Your task to perform on an android device: toggle improve location accuracy Image 0: 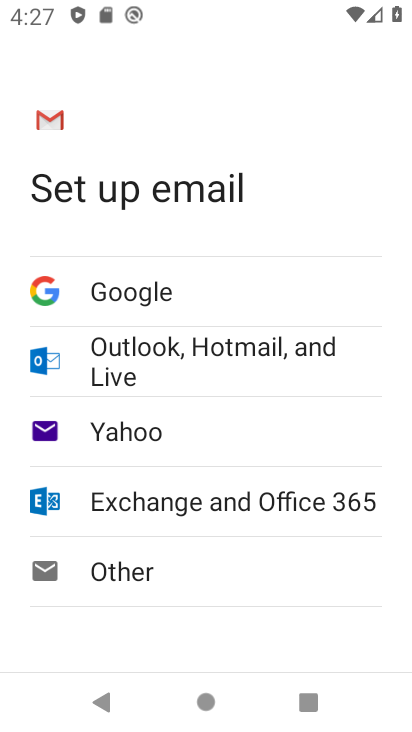
Step 0: press home button
Your task to perform on an android device: toggle improve location accuracy Image 1: 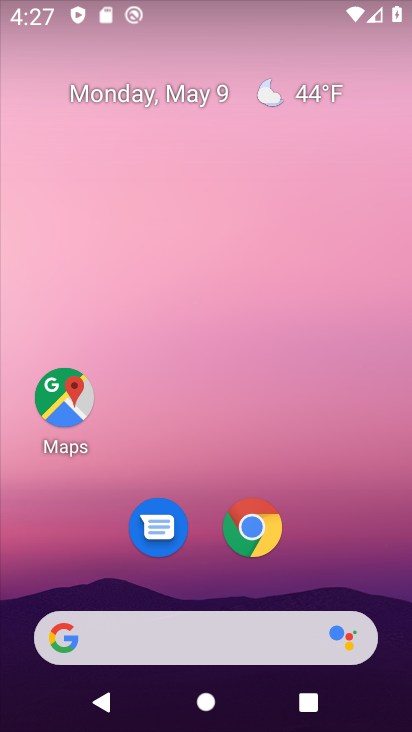
Step 1: drag from (217, 554) to (238, 96)
Your task to perform on an android device: toggle improve location accuracy Image 2: 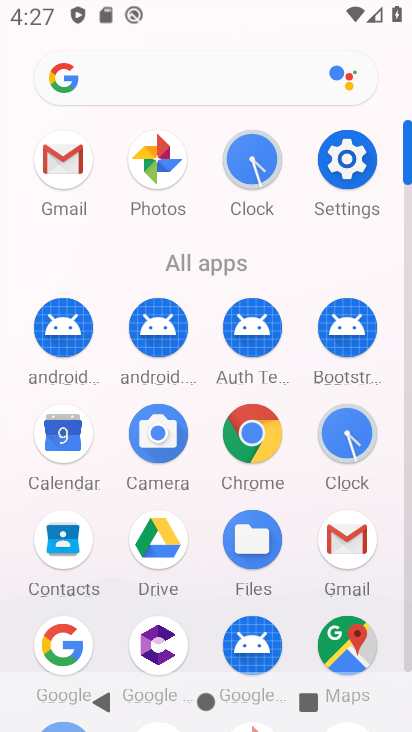
Step 2: click (332, 165)
Your task to perform on an android device: toggle improve location accuracy Image 3: 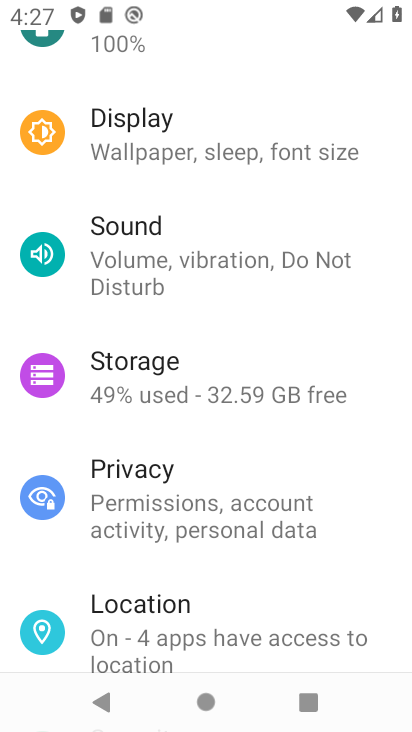
Step 3: click (128, 589)
Your task to perform on an android device: toggle improve location accuracy Image 4: 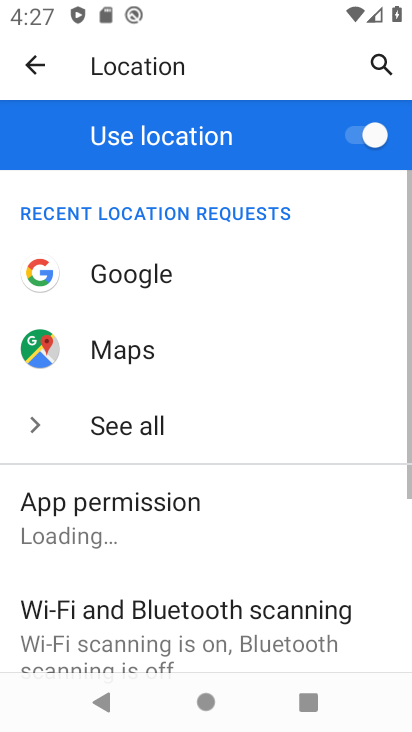
Step 4: drag from (151, 622) to (235, 109)
Your task to perform on an android device: toggle improve location accuracy Image 5: 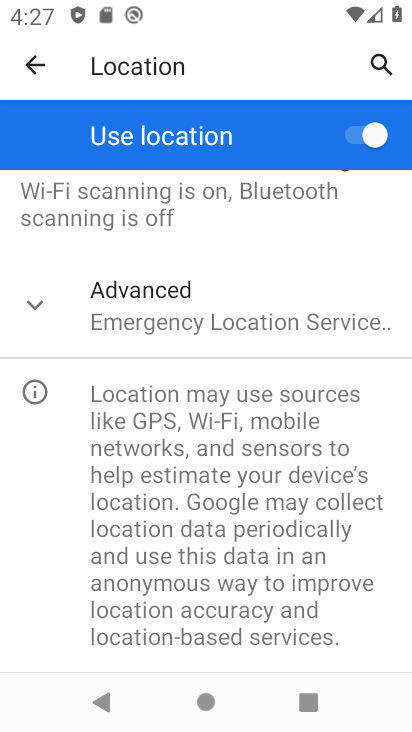
Step 5: click (226, 321)
Your task to perform on an android device: toggle improve location accuracy Image 6: 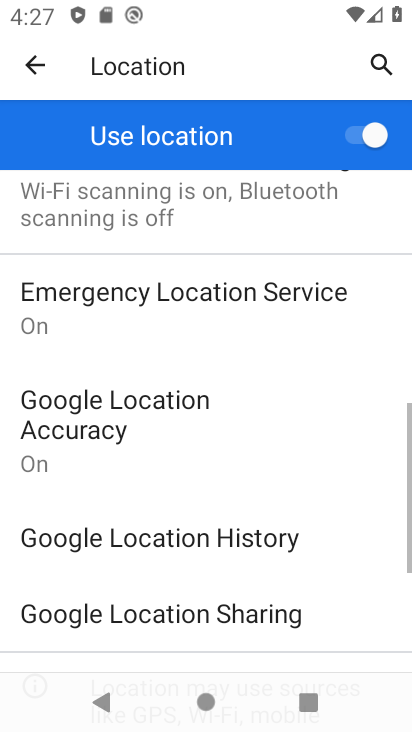
Step 6: drag from (168, 580) to (230, 329)
Your task to perform on an android device: toggle improve location accuracy Image 7: 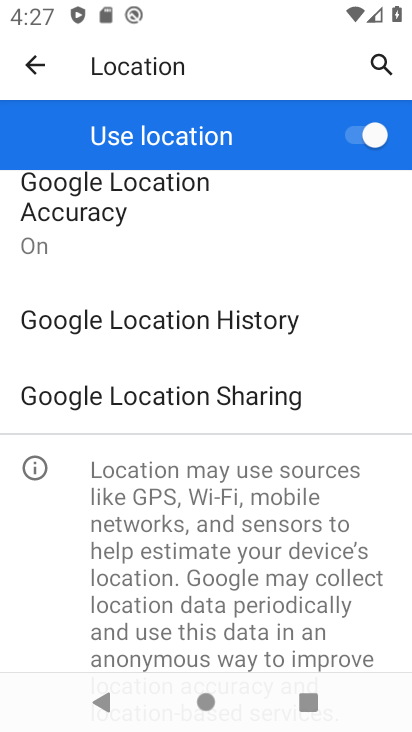
Step 7: click (149, 237)
Your task to perform on an android device: toggle improve location accuracy Image 8: 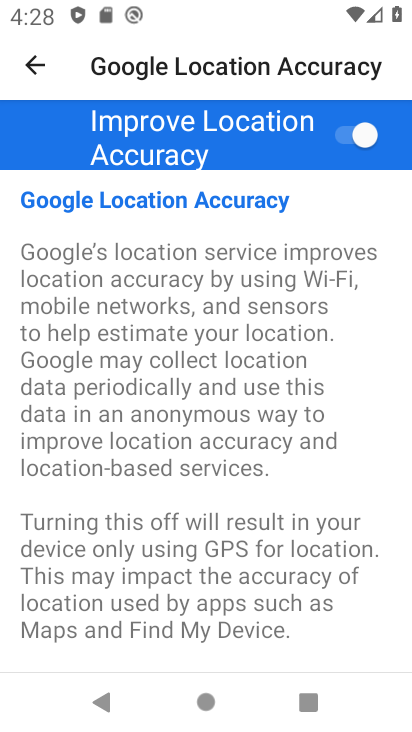
Step 8: click (342, 132)
Your task to perform on an android device: toggle improve location accuracy Image 9: 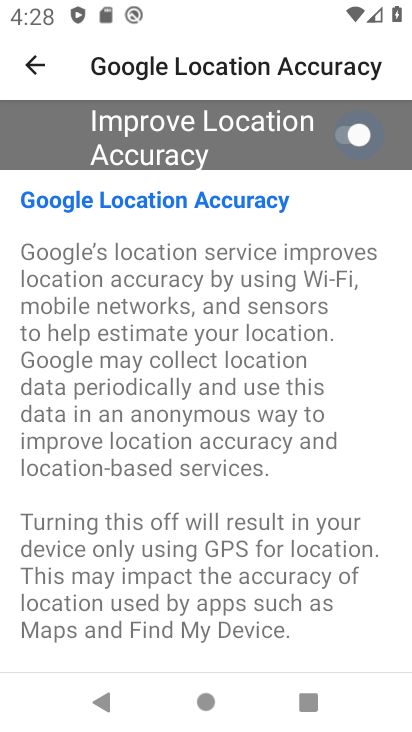
Step 9: click (342, 132)
Your task to perform on an android device: toggle improve location accuracy Image 10: 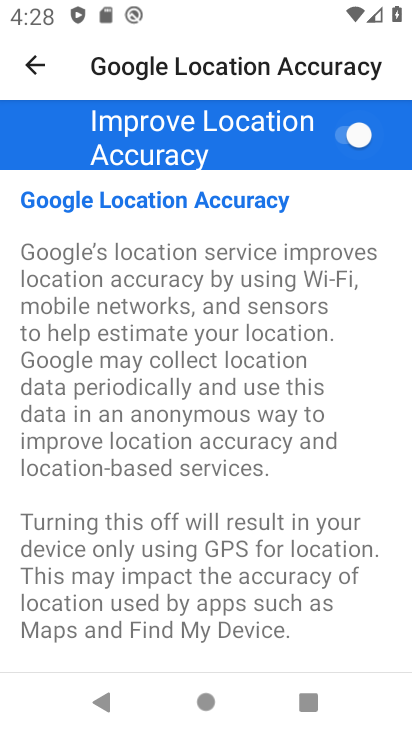
Step 10: click (342, 132)
Your task to perform on an android device: toggle improve location accuracy Image 11: 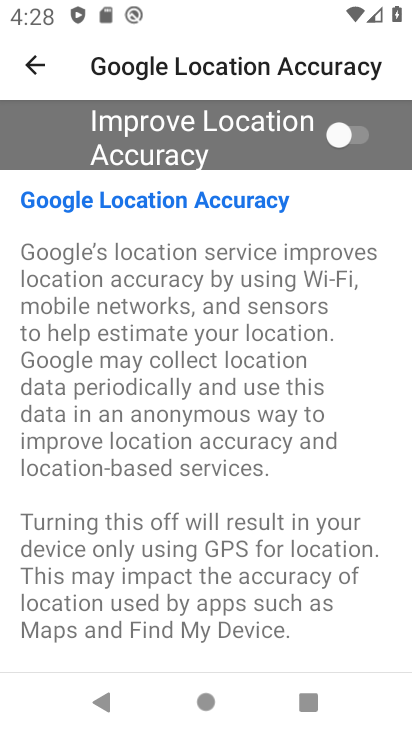
Step 11: task complete